Your task to perform on an android device: Google the capital of the United States Image 0: 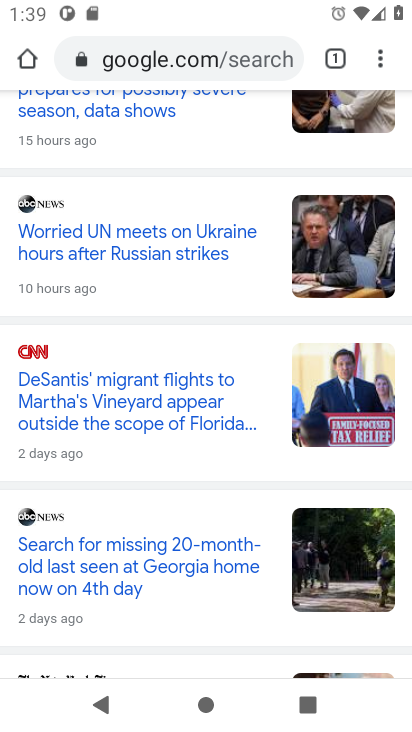
Step 0: press home button
Your task to perform on an android device: Google the capital of the United States Image 1: 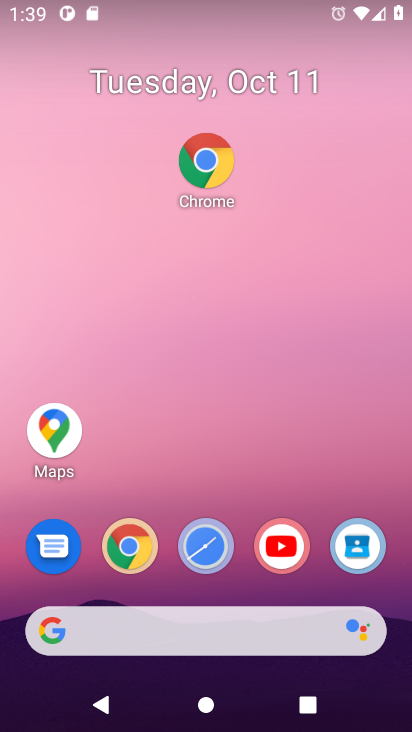
Step 1: click (120, 558)
Your task to perform on an android device: Google the capital of the United States Image 2: 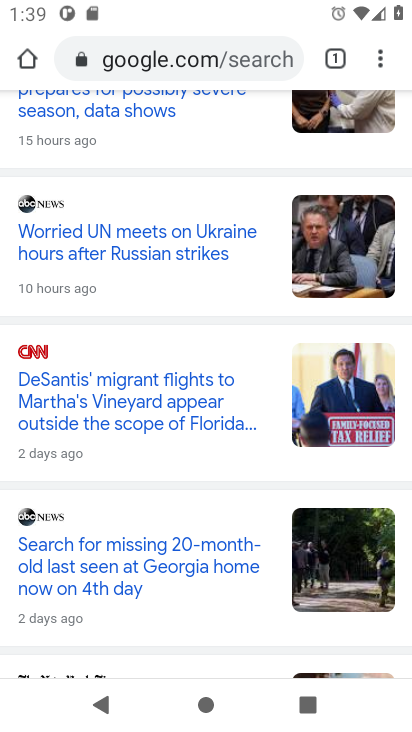
Step 2: click (183, 65)
Your task to perform on an android device: Google the capital of the United States Image 3: 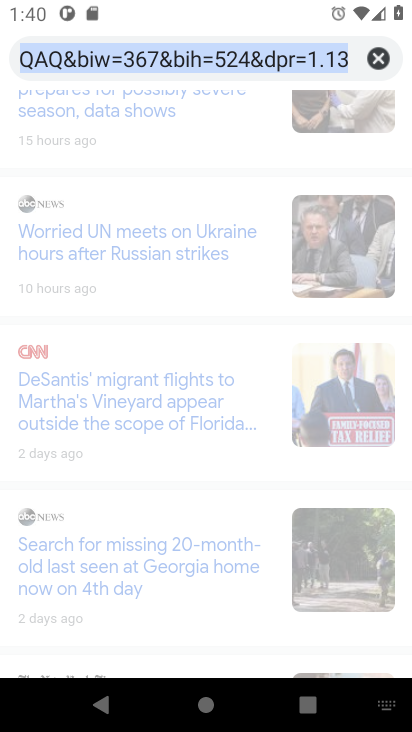
Step 3: type "capital of the United States"
Your task to perform on an android device: Google the capital of the United States Image 4: 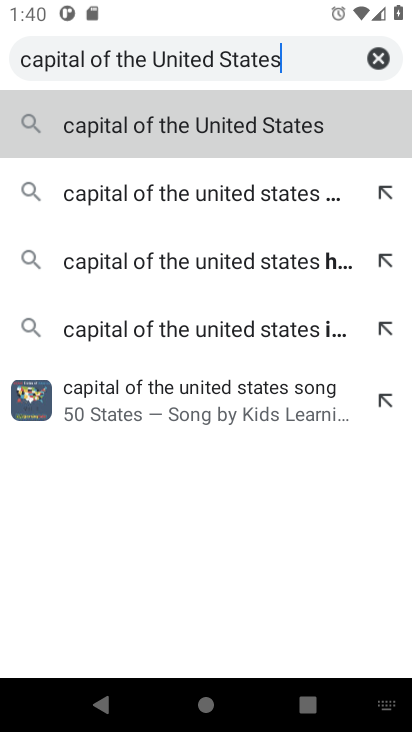
Step 4: type ""
Your task to perform on an android device: Google the capital of the United States Image 5: 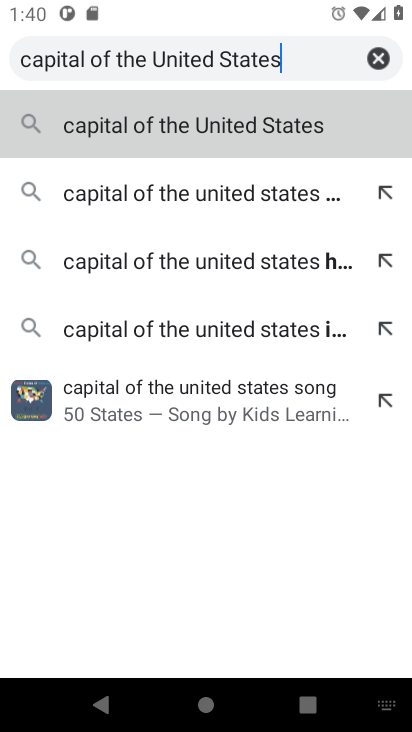
Step 5: press enter
Your task to perform on an android device: Google the capital of the United States Image 6: 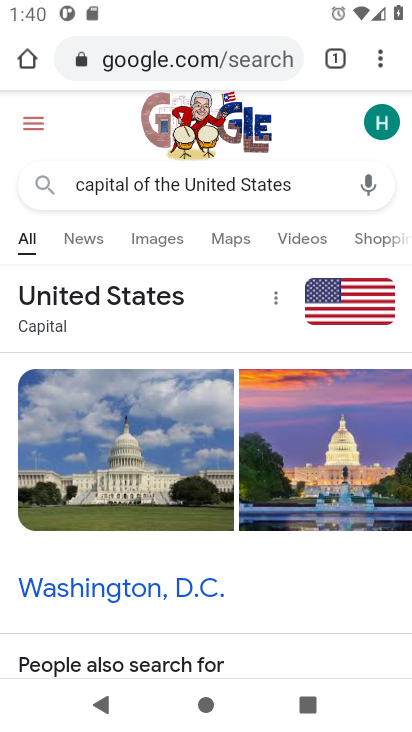
Step 6: task complete